Your task to perform on an android device: Open privacy settings Image 0: 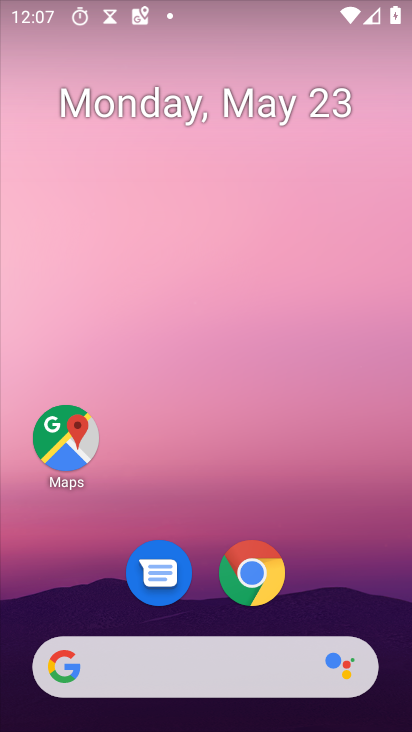
Step 0: press home button
Your task to perform on an android device: Open privacy settings Image 1: 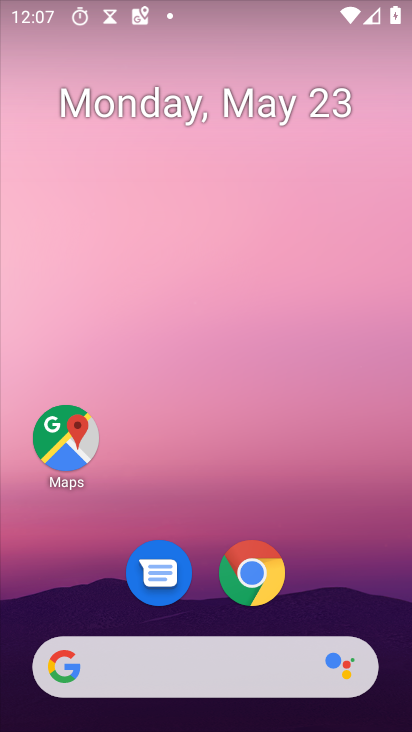
Step 1: drag from (135, 677) to (321, 112)
Your task to perform on an android device: Open privacy settings Image 2: 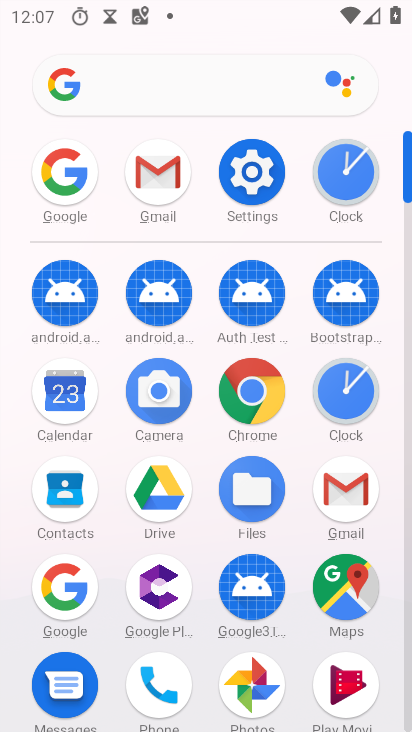
Step 2: click (262, 167)
Your task to perform on an android device: Open privacy settings Image 3: 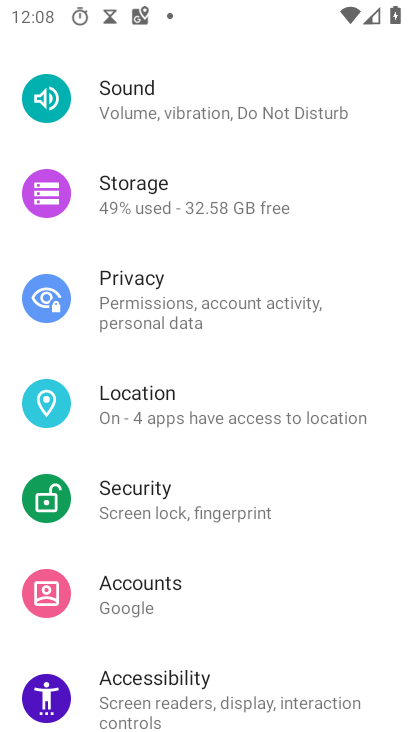
Step 3: click (140, 311)
Your task to perform on an android device: Open privacy settings Image 4: 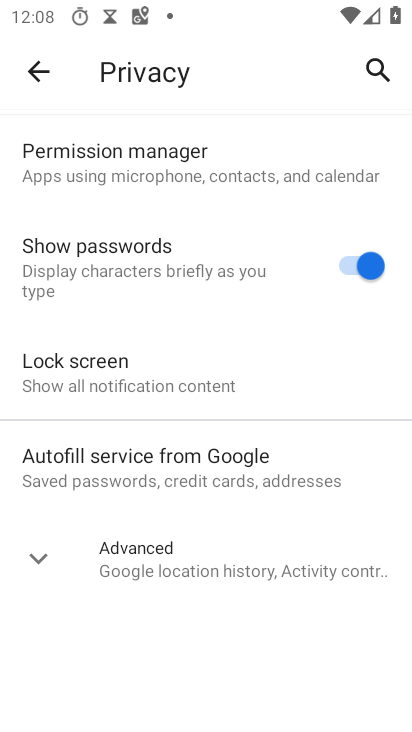
Step 4: task complete